Your task to perform on an android device: delete the emails in spam in the gmail app Image 0: 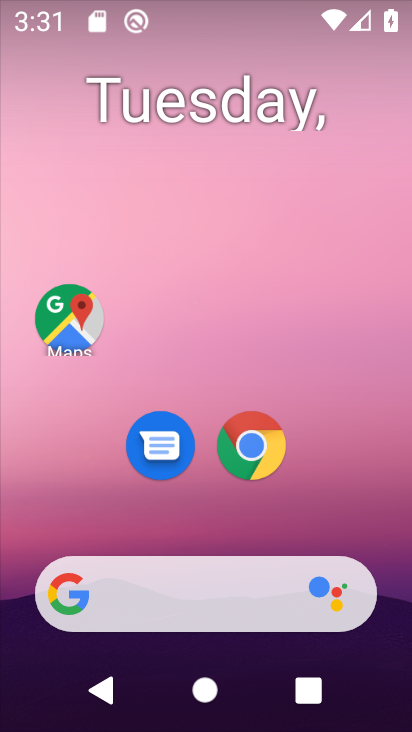
Step 0: drag from (49, 572) to (233, 94)
Your task to perform on an android device: delete the emails in spam in the gmail app Image 1: 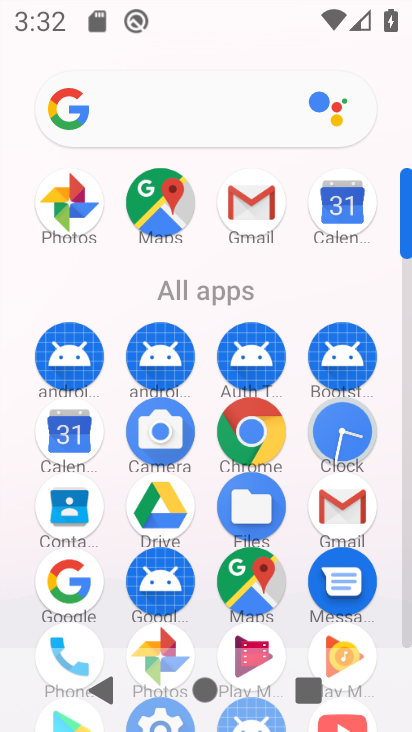
Step 1: click (358, 525)
Your task to perform on an android device: delete the emails in spam in the gmail app Image 2: 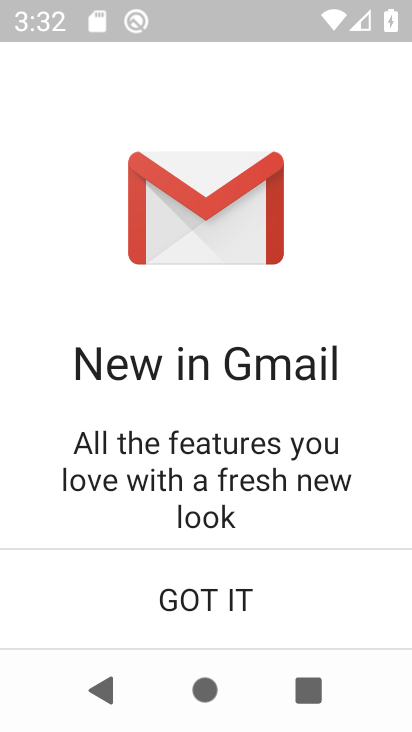
Step 2: click (267, 593)
Your task to perform on an android device: delete the emails in spam in the gmail app Image 3: 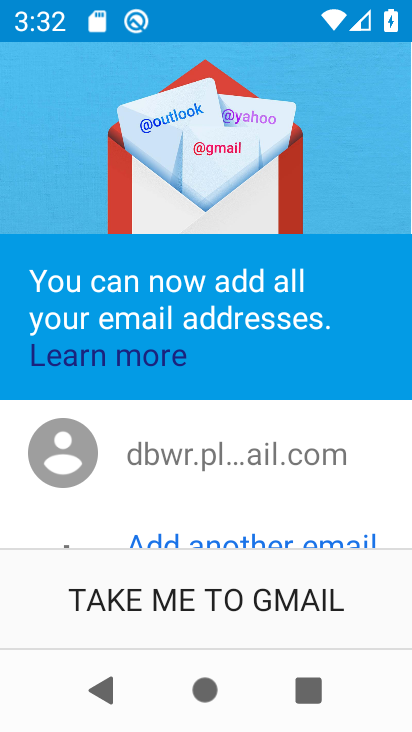
Step 3: click (274, 611)
Your task to perform on an android device: delete the emails in spam in the gmail app Image 4: 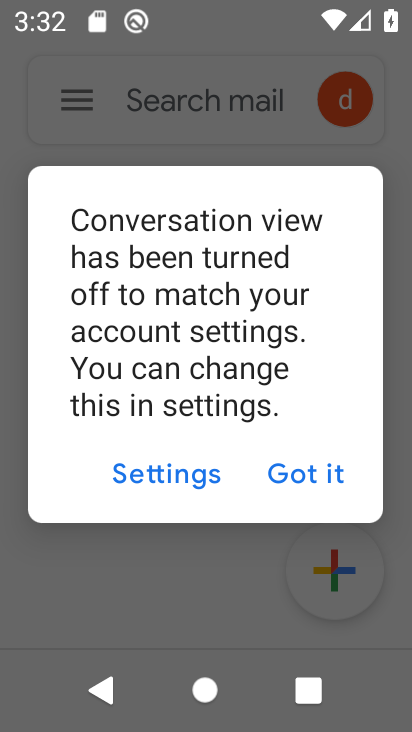
Step 4: click (325, 463)
Your task to perform on an android device: delete the emails in spam in the gmail app Image 5: 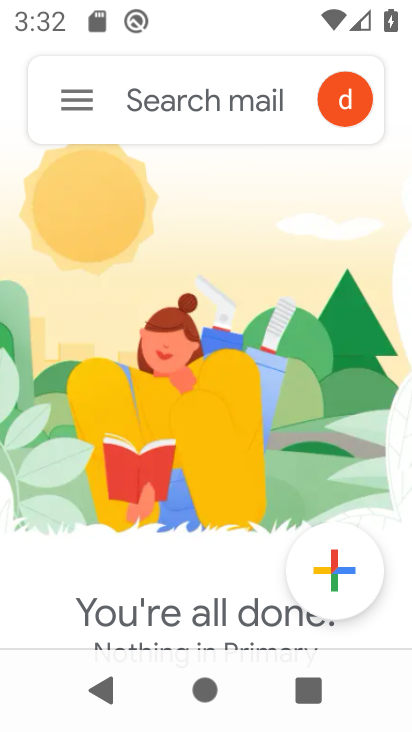
Step 5: click (110, 123)
Your task to perform on an android device: delete the emails in spam in the gmail app Image 6: 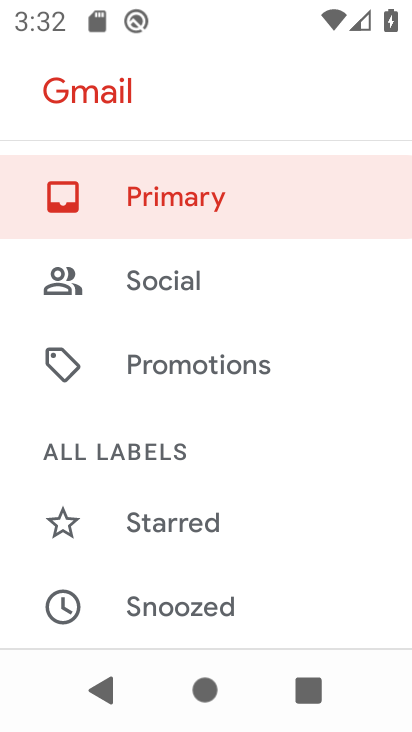
Step 6: drag from (116, 564) to (303, 180)
Your task to perform on an android device: delete the emails in spam in the gmail app Image 7: 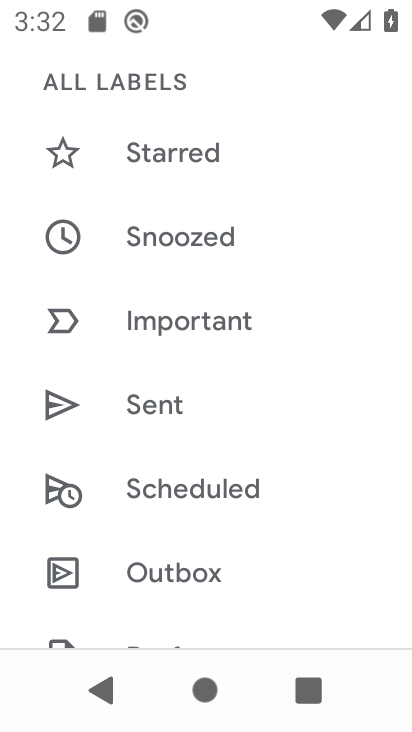
Step 7: drag from (188, 638) to (315, 212)
Your task to perform on an android device: delete the emails in spam in the gmail app Image 8: 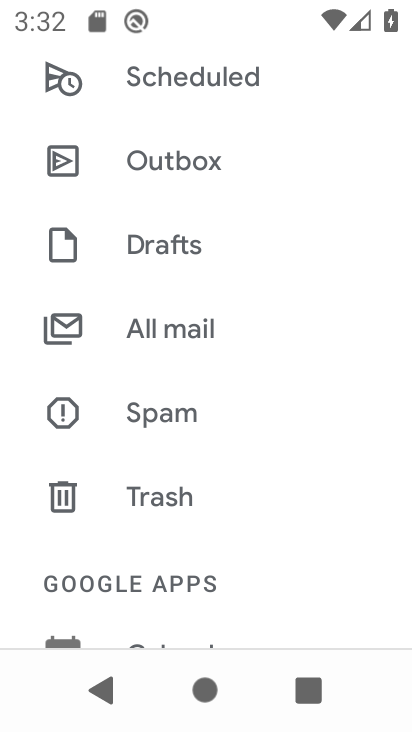
Step 8: click (221, 424)
Your task to perform on an android device: delete the emails in spam in the gmail app Image 9: 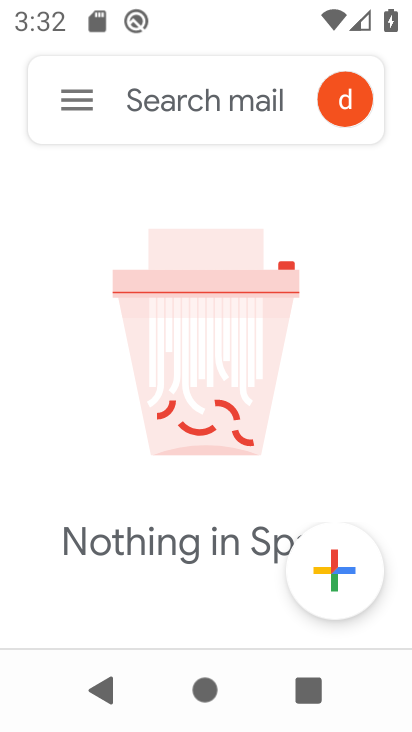
Step 9: task complete